Your task to perform on an android device: Search for the new Jordans on Nike.com Image 0: 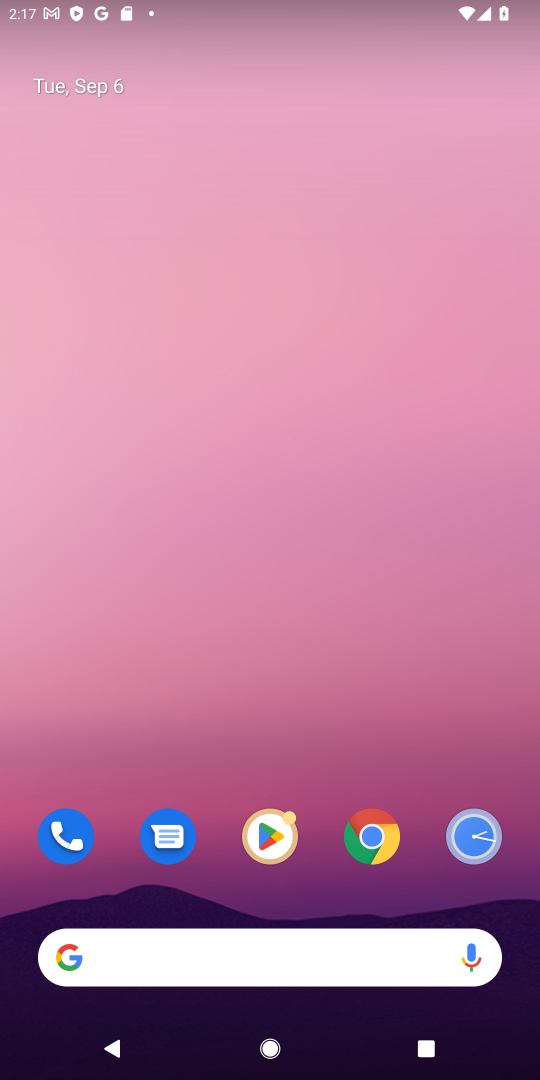
Step 0: click (204, 975)
Your task to perform on an android device: Search for the new Jordans on Nike.com Image 1: 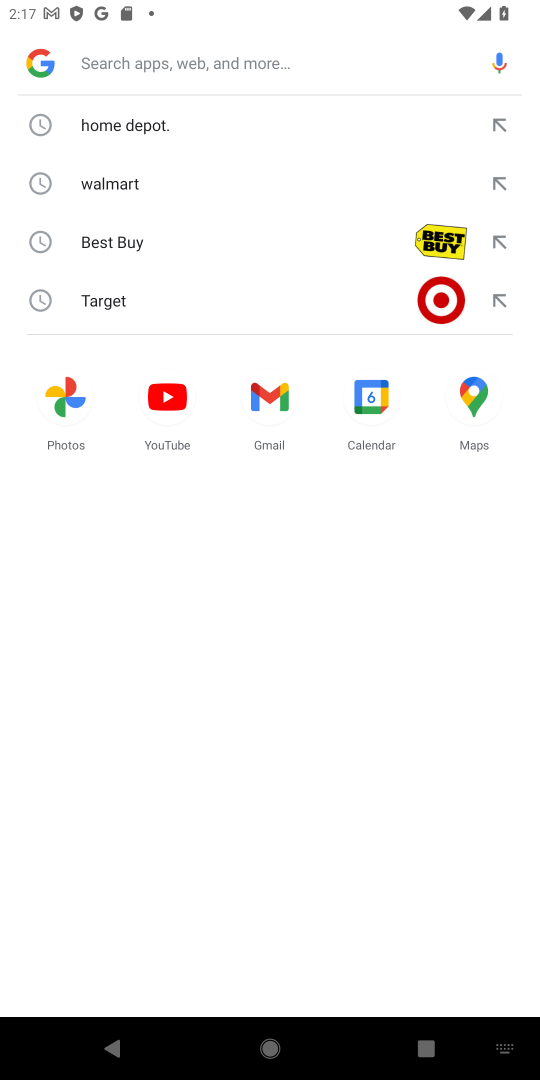
Step 1: type "nike.com"
Your task to perform on an android device: Search for the new Jordans on Nike.com Image 2: 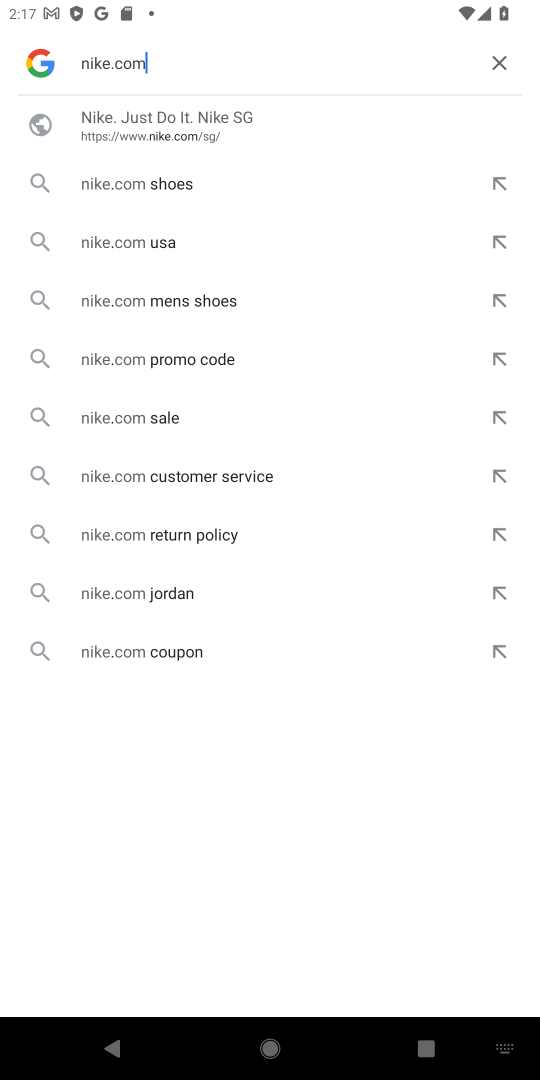
Step 2: click (107, 117)
Your task to perform on an android device: Search for the new Jordans on Nike.com Image 3: 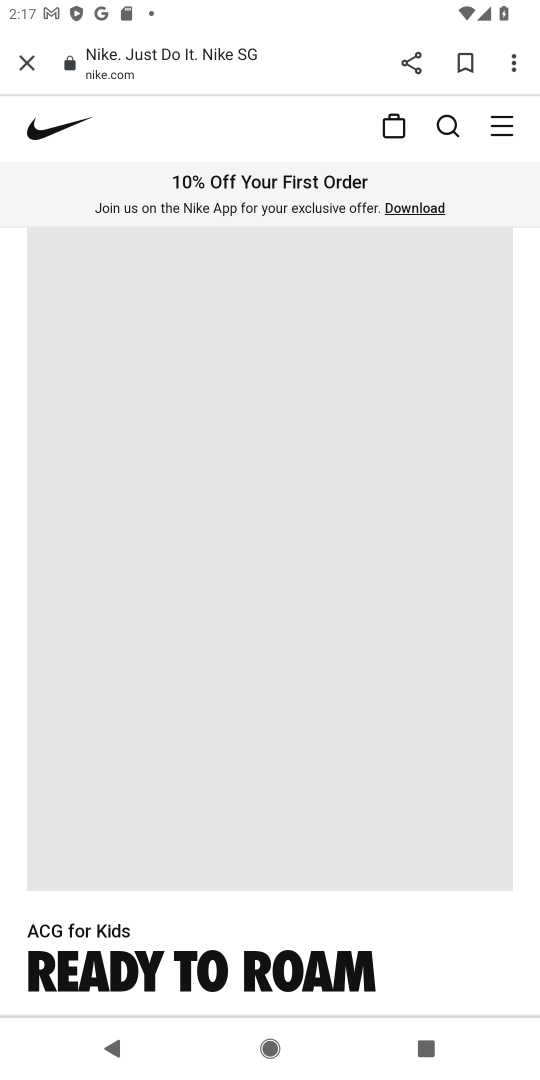
Step 3: click (447, 123)
Your task to perform on an android device: Search for the new Jordans on Nike.com Image 4: 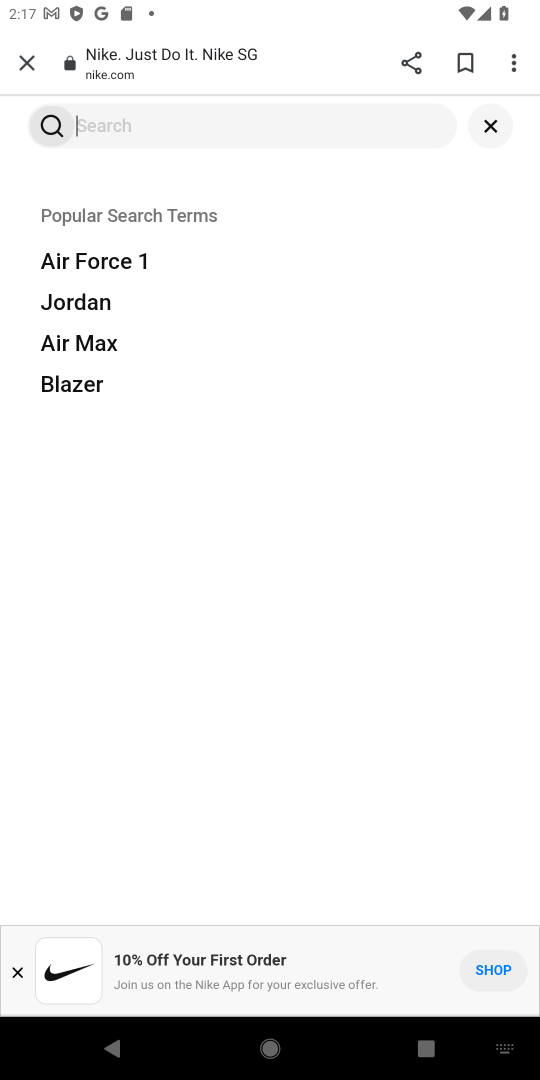
Step 4: type "new jordans"
Your task to perform on an android device: Search for the new Jordans on Nike.com Image 5: 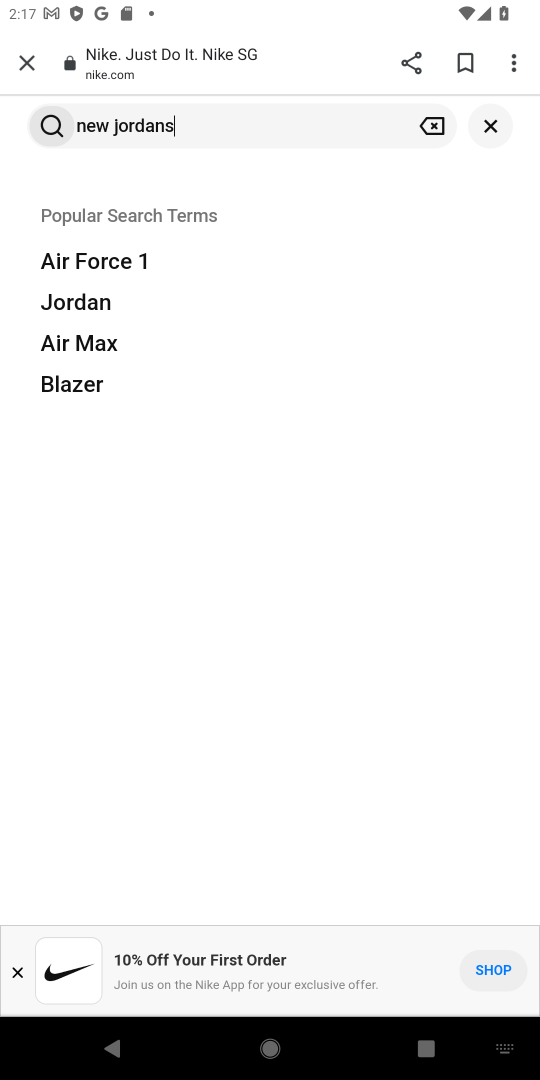
Step 5: click (43, 115)
Your task to perform on an android device: Search for the new Jordans on Nike.com Image 6: 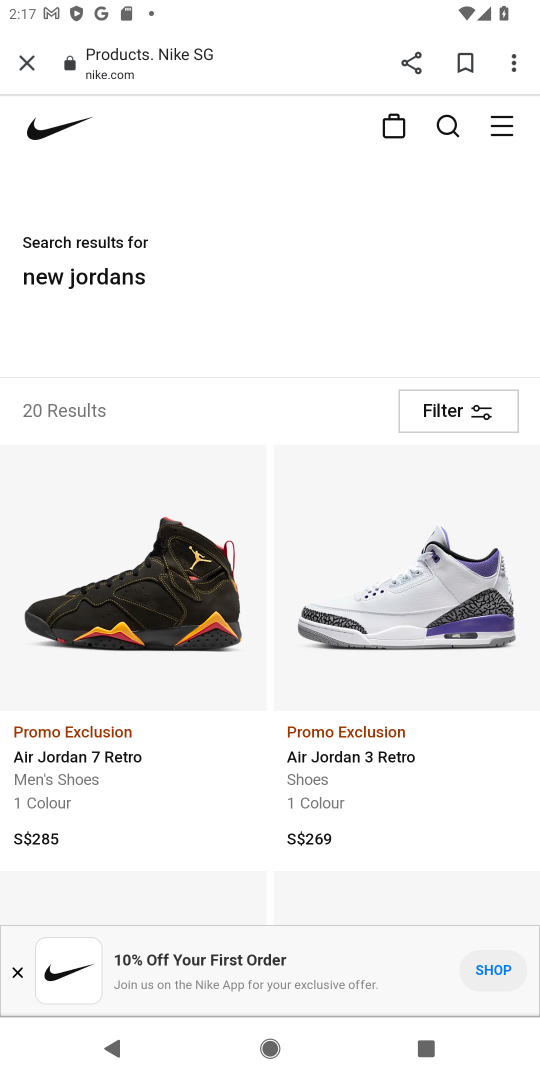
Step 6: task complete